Your task to perform on an android device: change notification settings in the gmail app Image 0: 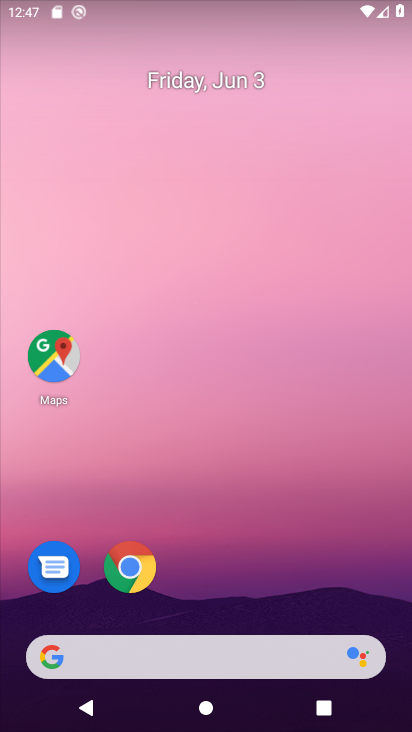
Step 0: drag from (260, 547) to (259, 260)
Your task to perform on an android device: change notification settings in the gmail app Image 1: 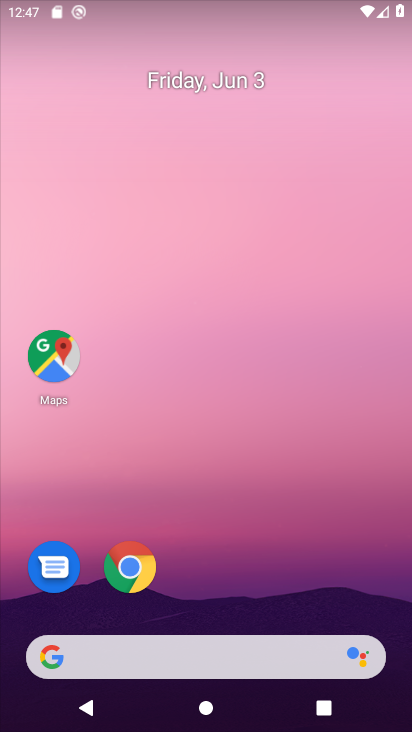
Step 1: drag from (259, 590) to (281, 85)
Your task to perform on an android device: change notification settings in the gmail app Image 2: 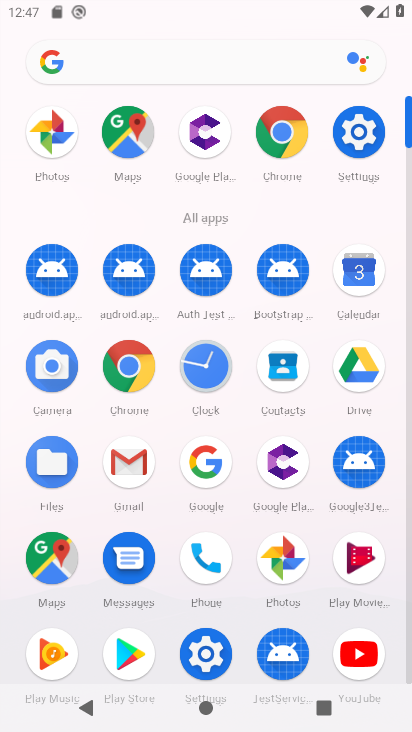
Step 2: click (123, 448)
Your task to perform on an android device: change notification settings in the gmail app Image 3: 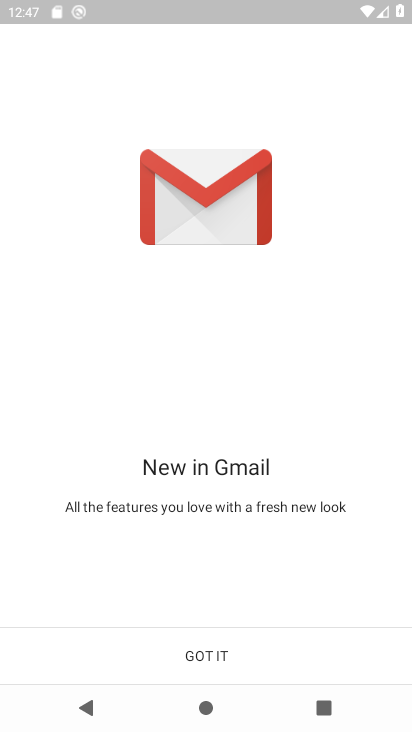
Step 3: click (236, 645)
Your task to perform on an android device: change notification settings in the gmail app Image 4: 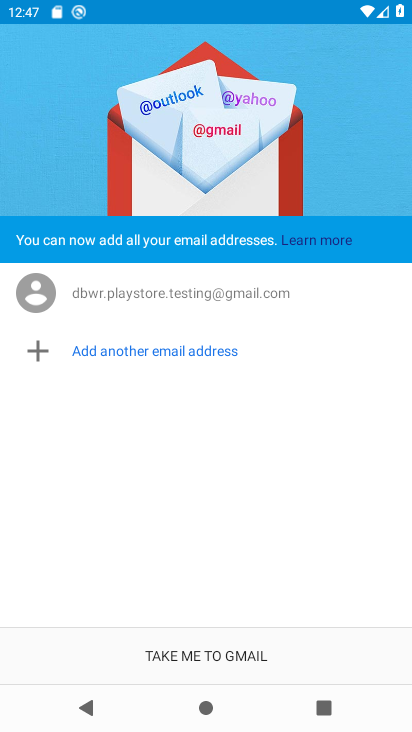
Step 4: click (238, 642)
Your task to perform on an android device: change notification settings in the gmail app Image 5: 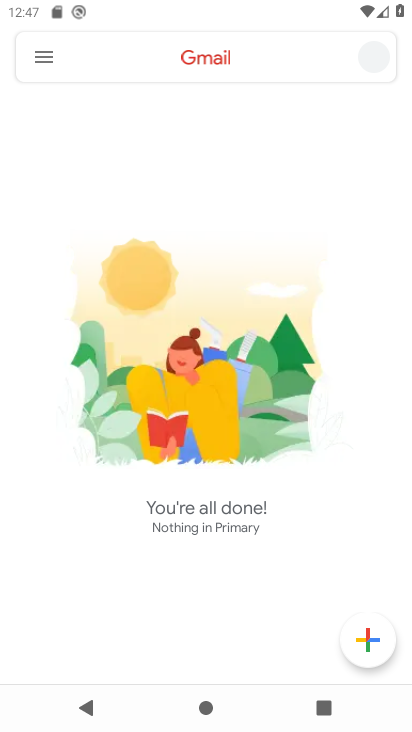
Step 5: click (38, 58)
Your task to perform on an android device: change notification settings in the gmail app Image 6: 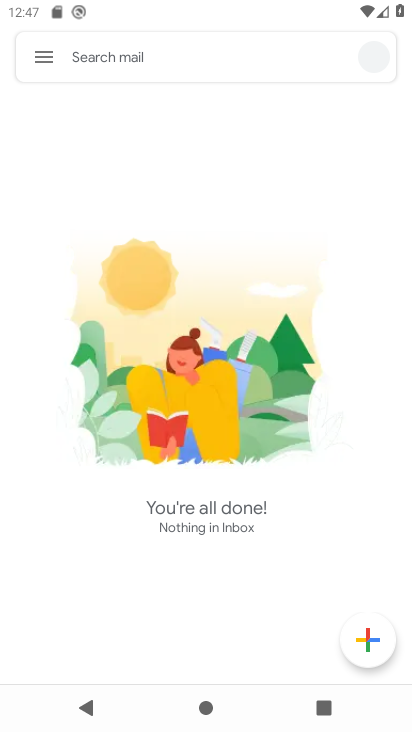
Step 6: click (43, 48)
Your task to perform on an android device: change notification settings in the gmail app Image 7: 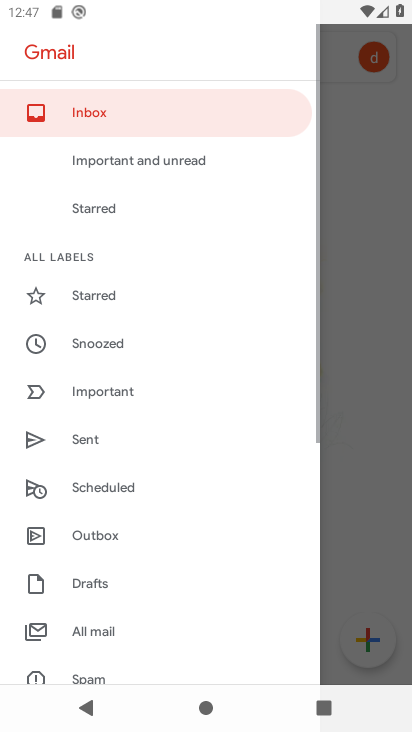
Step 7: drag from (113, 616) to (133, 194)
Your task to perform on an android device: change notification settings in the gmail app Image 8: 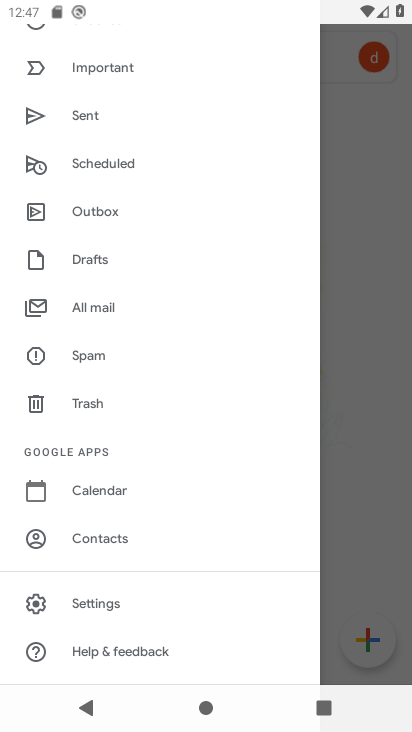
Step 8: click (139, 599)
Your task to perform on an android device: change notification settings in the gmail app Image 9: 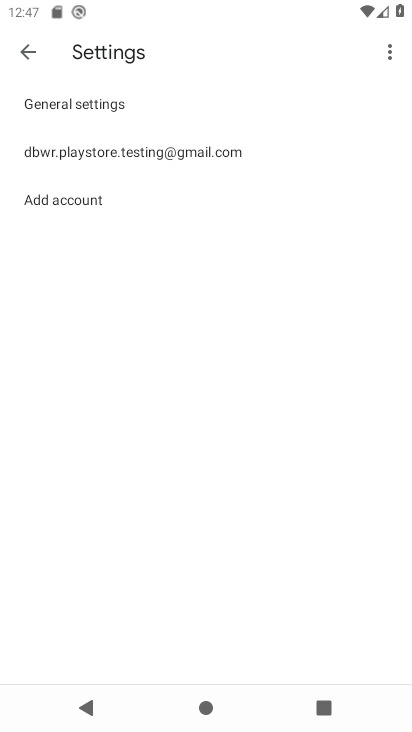
Step 9: click (101, 142)
Your task to perform on an android device: change notification settings in the gmail app Image 10: 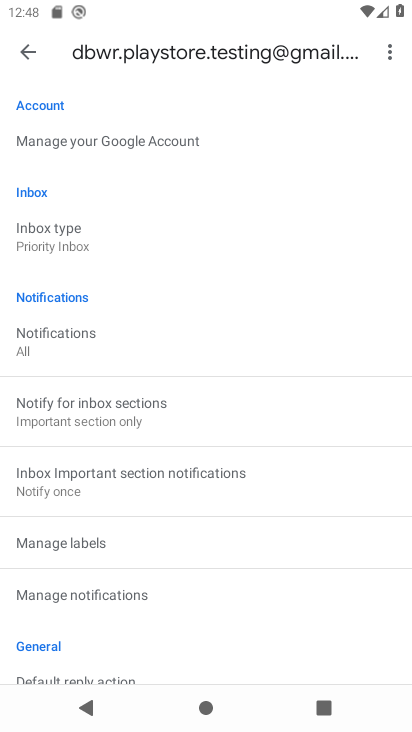
Step 10: click (81, 343)
Your task to perform on an android device: change notification settings in the gmail app Image 11: 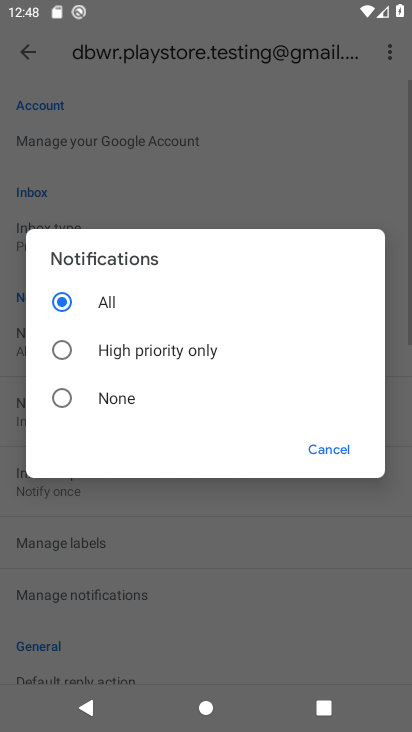
Step 11: click (109, 405)
Your task to perform on an android device: change notification settings in the gmail app Image 12: 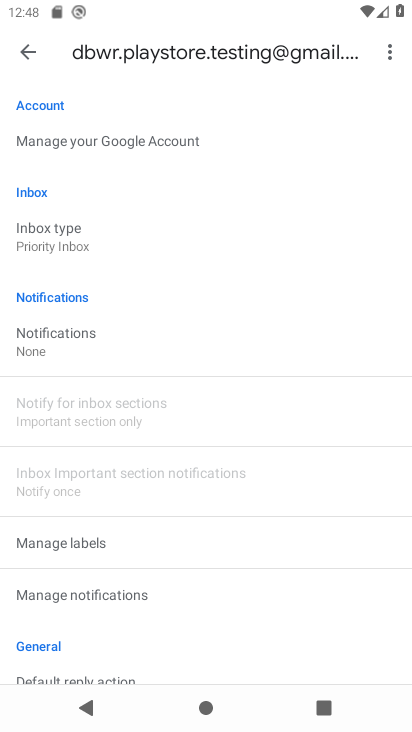
Step 12: task complete